Your task to perform on an android device: Open Youtube and go to the subscriptions tab Image 0: 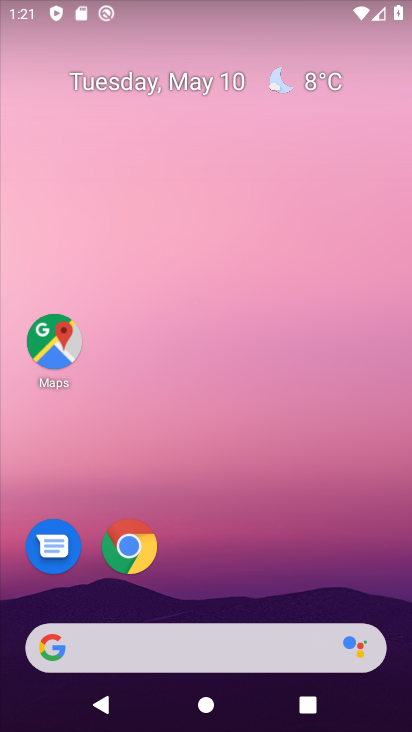
Step 0: drag from (406, 663) to (310, 103)
Your task to perform on an android device: Open Youtube and go to the subscriptions tab Image 1: 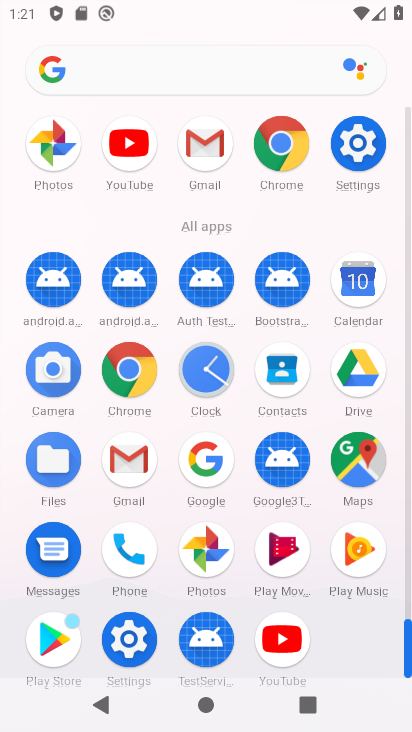
Step 1: click (282, 637)
Your task to perform on an android device: Open Youtube and go to the subscriptions tab Image 2: 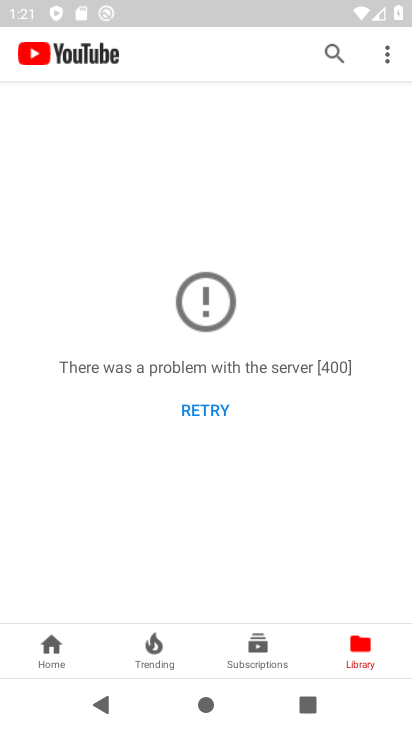
Step 2: click (259, 636)
Your task to perform on an android device: Open Youtube and go to the subscriptions tab Image 3: 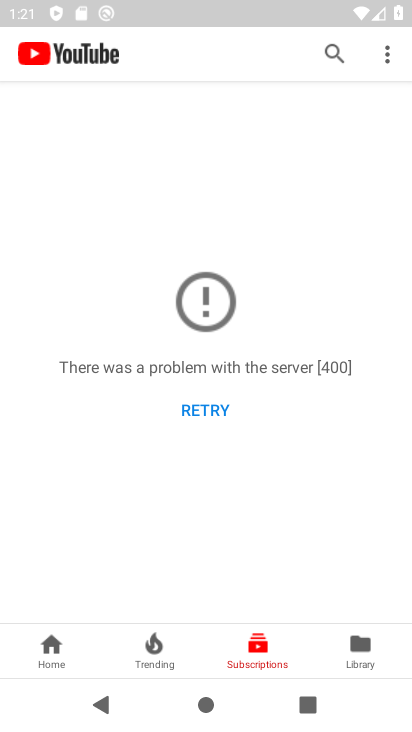
Step 3: click (198, 408)
Your task to perform on an android device: Open Youtube and go to the subscriptions tab Image 4: 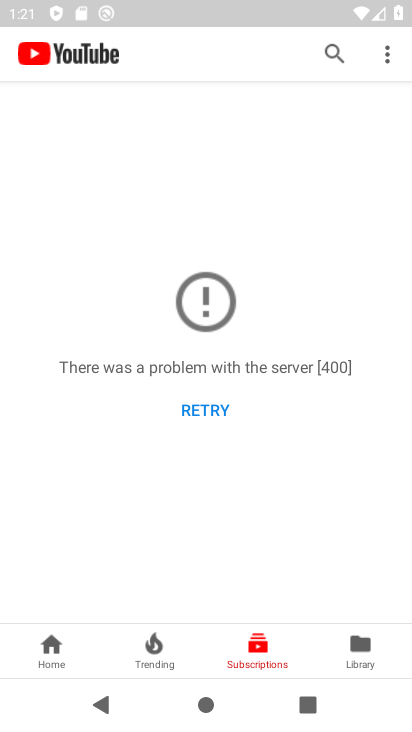
Step 4: task complete